Your task to perform on an android device: turn notification dots on Image 0: 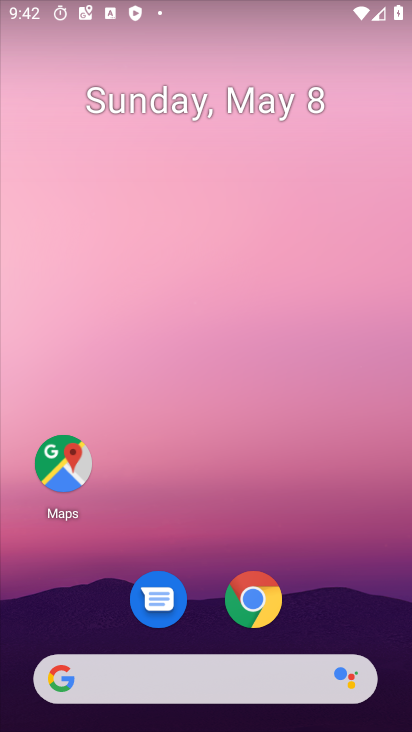
Step 0: drag from (237, 615) to (75, 41)
Your task to perform on an android device: turn notification dots on Image 1: 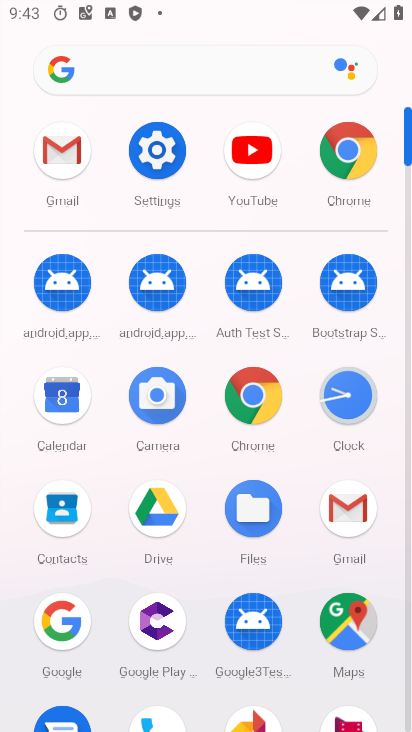
Step 1: click (167, 151)
Your task to perform on an android device: turn notification dots on Image 2: 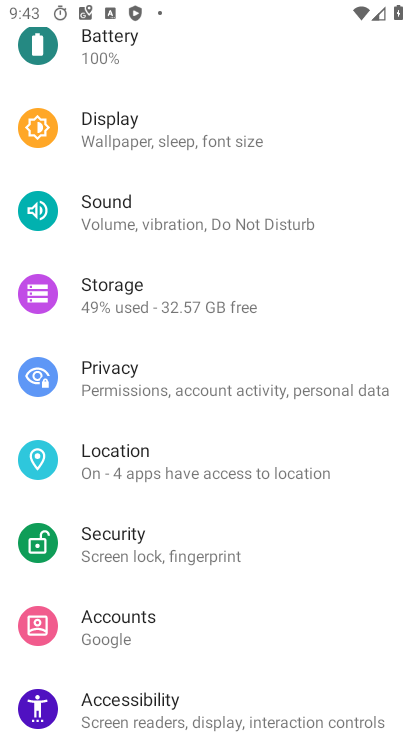
Step 2: drag from (264, 267) to (156, 553)
Your task to perform on an android device: turn notification dots on Image 3: 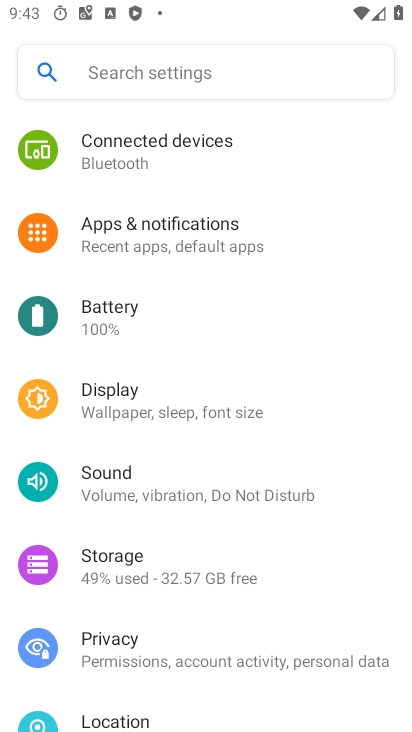
Step 3: click (250, 220)
Your task to perform on an android device: turn notification dots on Image 4: 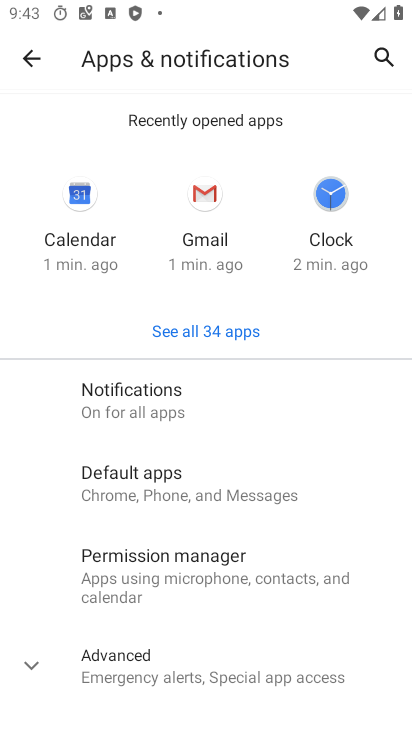
Step 4: click (208, 417)
Your task to perform on an android device: turn notification dots on Image 5: 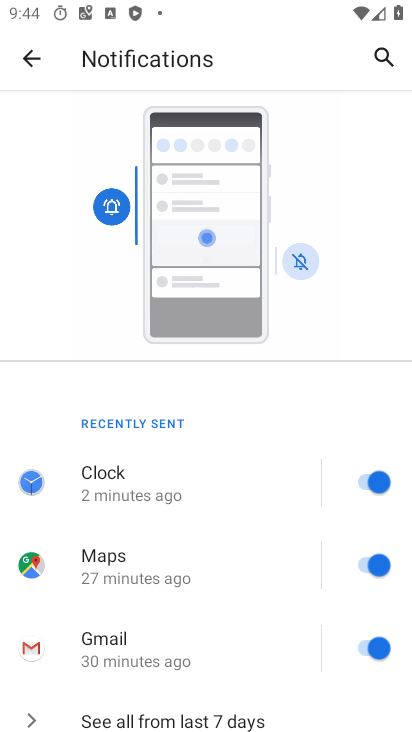
Step 5: drag from (210, 648) to (210, 209)
Your task to perform on an android device: turn notification dots on Image 6: 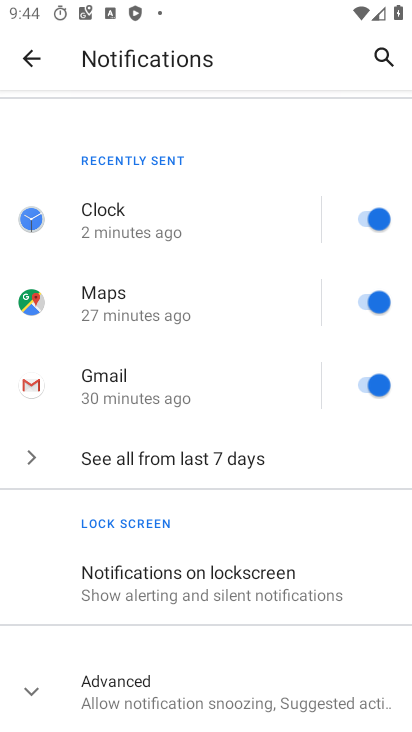
Step 6: click (256, 581)
Your task to perform on an android device: turn notification dots on Image 7: 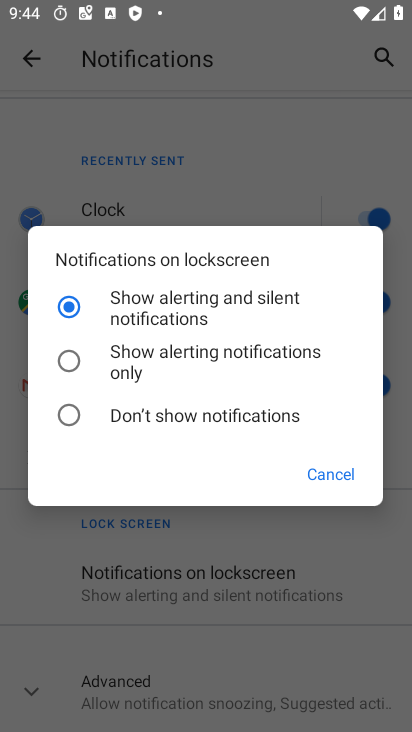
Step 7: click (345, 484)
Your task to perform on an android device: turn notification dots on Image 8: 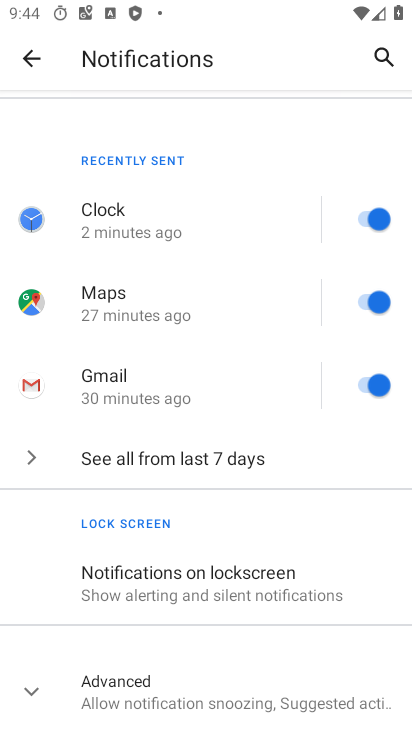
Step 8: click (224, 685)
Your task to perform on an android device: turn notification dots on Image 9: 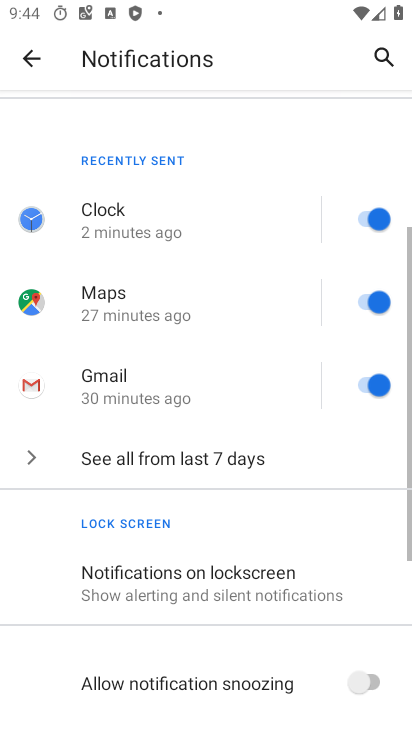
Step 9: task complete